Your task to perform on an android device: choose inbox layout in the gmail app Image 0: 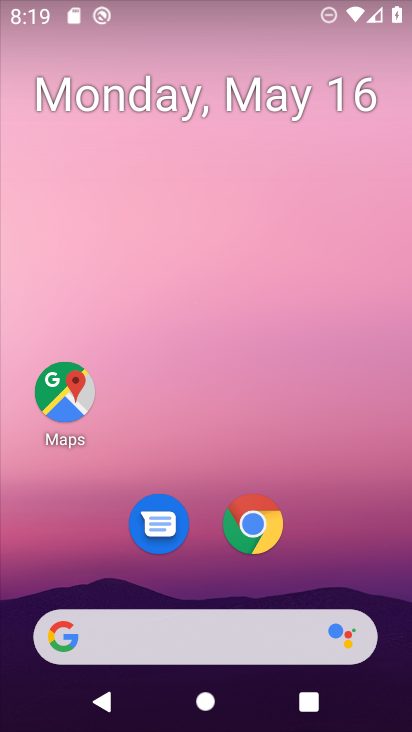
Step 0: drag from (301, 513) to (257, 76)
Your task to perform on an android device: choose inbox layout in the gmail app Image 1: 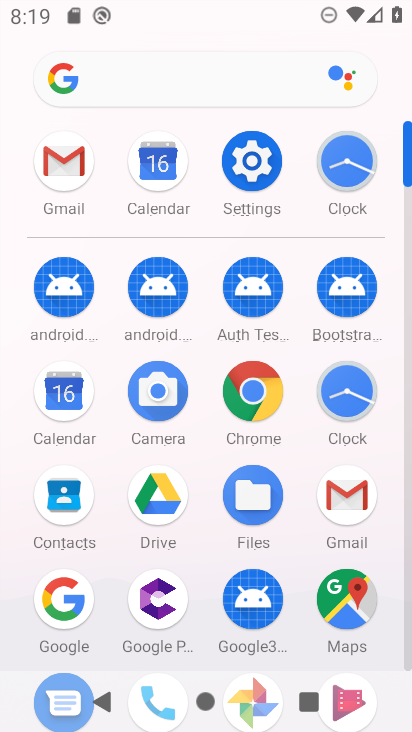
Step 1: click (76, 171)
Your task to perform on an android device: choose inbox layout in the gmail app Image 2: 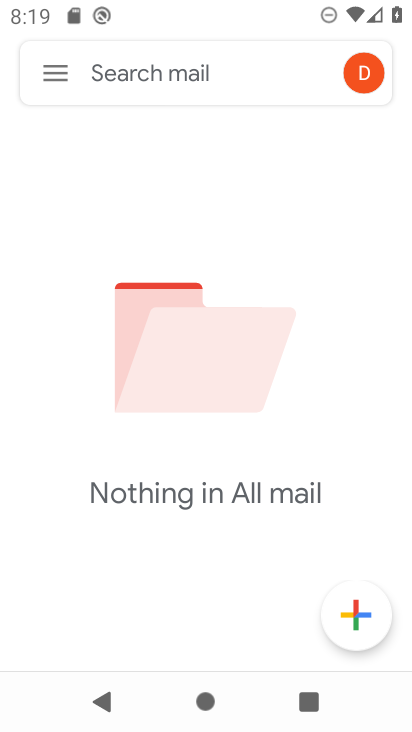
Step 2: click (54, 73)
Your task to perform on an android device: choose inbox layout in the gmail app Image 3: 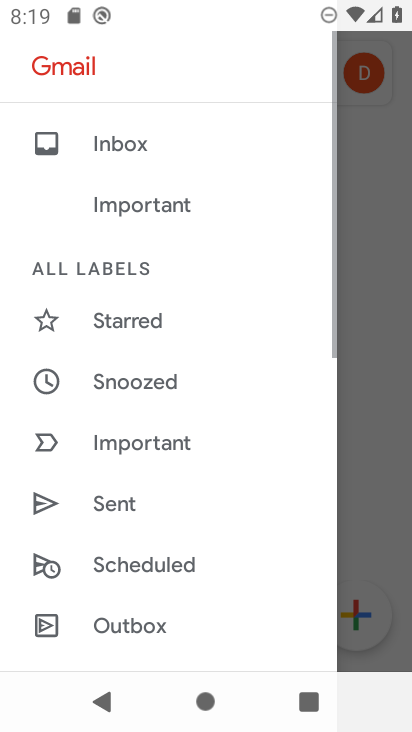
Step 3: drag from (153, 456) to (185, 150)
Your task to perform on an android device: choose inbox layout in the gmail app Image 4: 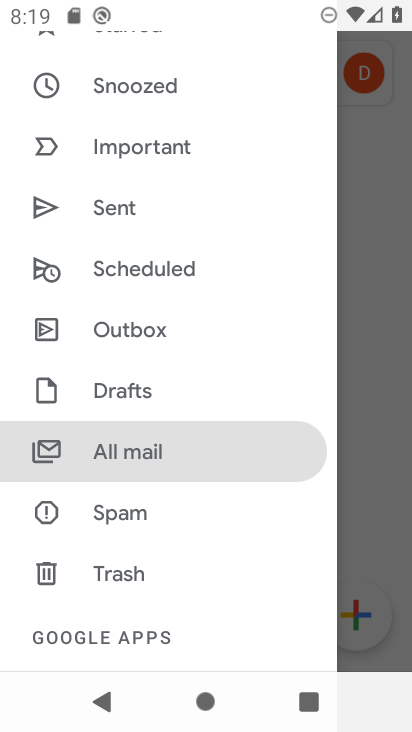
Step 4: drag from (157, 529) to (191, 166)
Your task to perform on an android device: choose inbox layout in the gmail app Image 5: 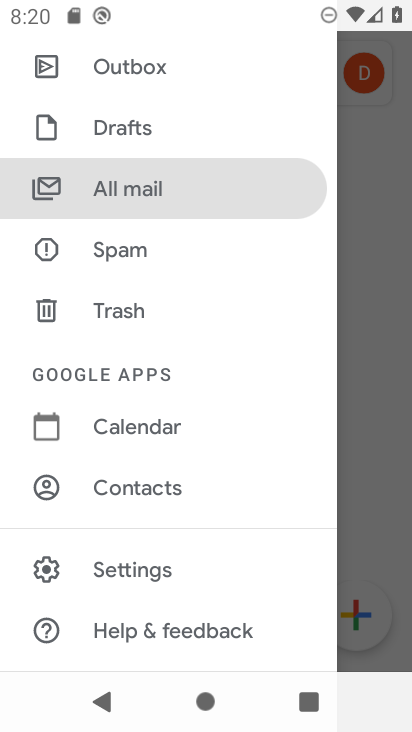
Step 5: click (151, 570)
Your task to perform on an android device: choose inbox layout in the gmail app Image 6: 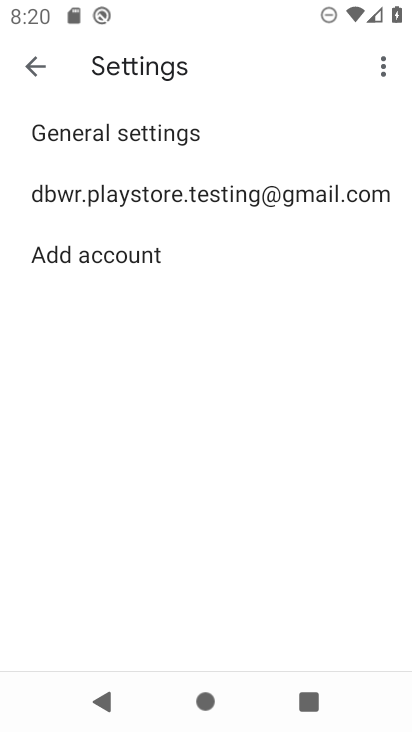
Step 6: click (232, 186)
Your task to perform on an android device: choose inbox layout in the gmail app Image 7: 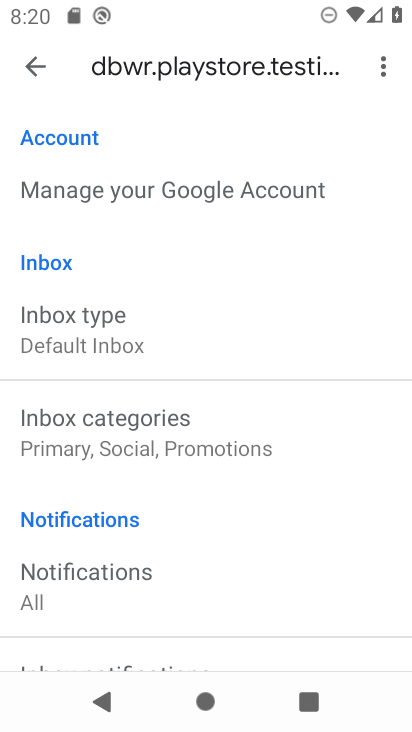
Step 7: click (96, 325)
Your task to perform on an android device: choose inbox layout in the gmail app Image 8: 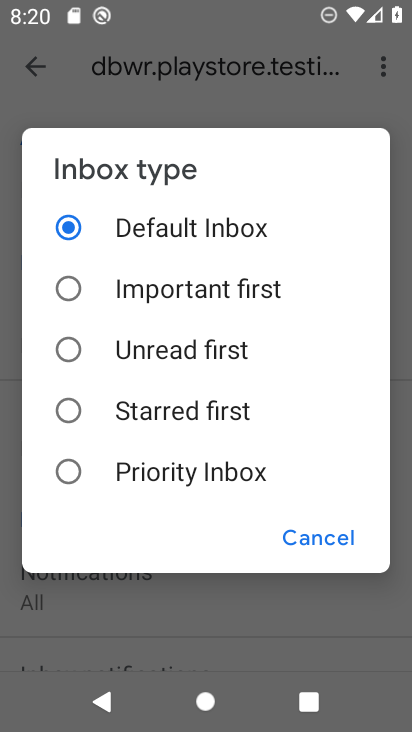
Step 8: click (71, 342)
Your task to perform on an android device: choose inbox layout in the gmail app Image 9: 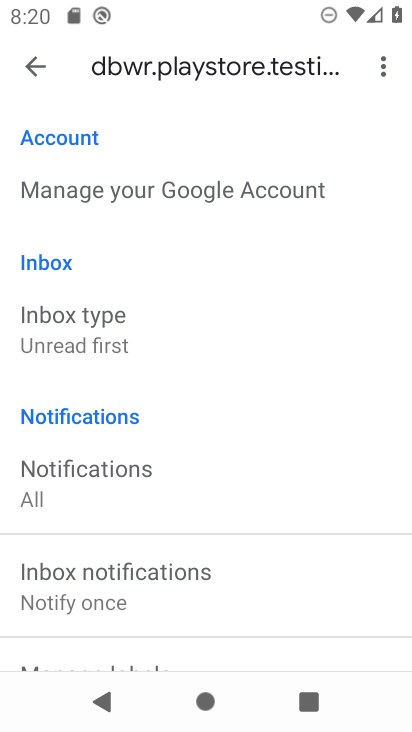
Step 9: task complete